Your task to perform on an android device: uninstall "Life360: Find Family & Friends" Image 0: 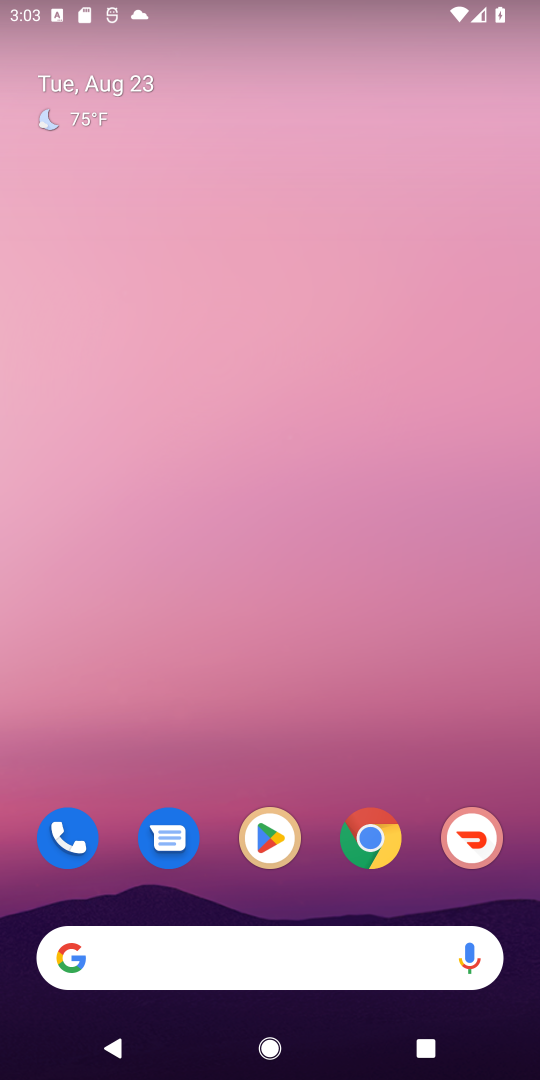
Step 0: click (267, 852)
Your task to perform on an android device: uninstall "Life360: Find Family & Friends" Image 1: 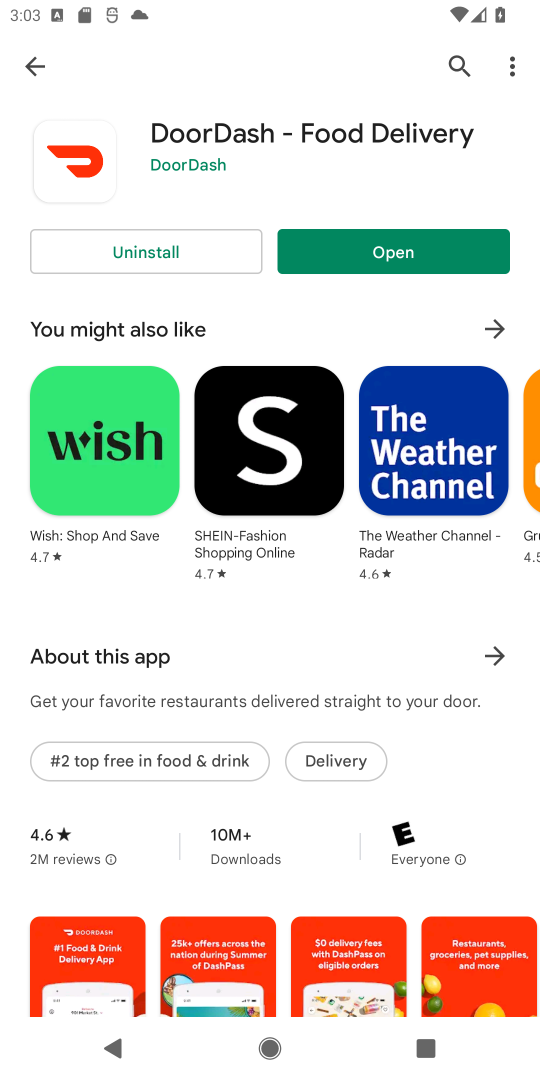
Step 1: click (31, 62)
Your task to perform on an android device: uninstall "Life360: Find Family & Friends" Image 2: 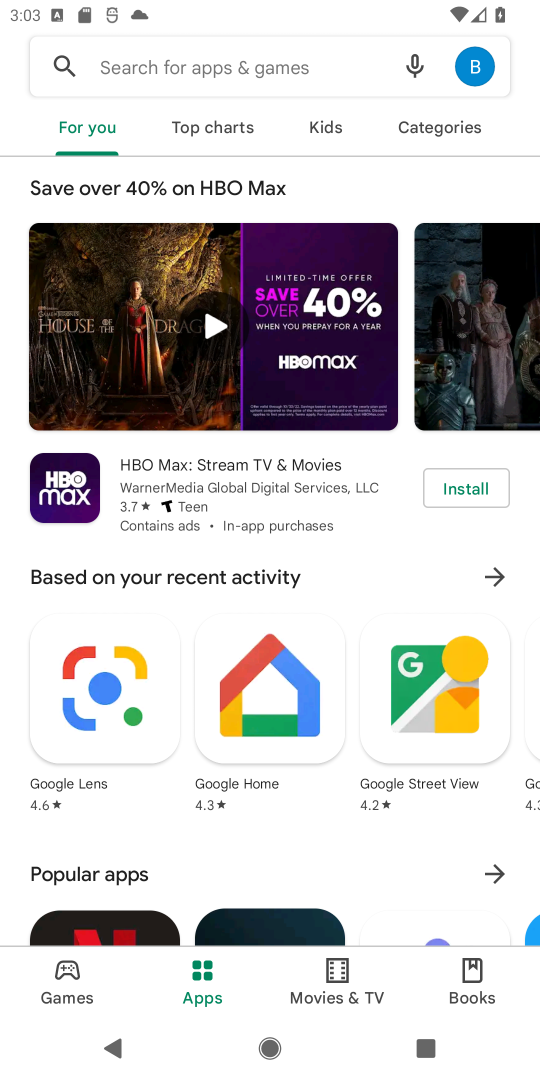
Step 2: click (245, 64)
Your task to perform on an android device: uninstall "Life360: Find Family & Friends" Image 3: 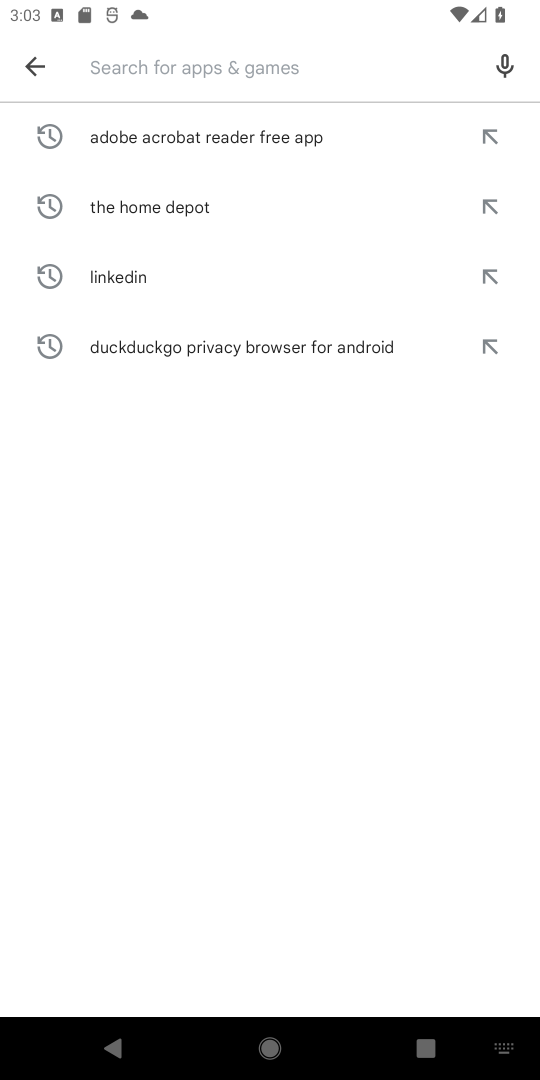
Step 3: type "Life360"
Your task to perform on an android device: uninstall "Life360: Find Family & Friends" Image 4: 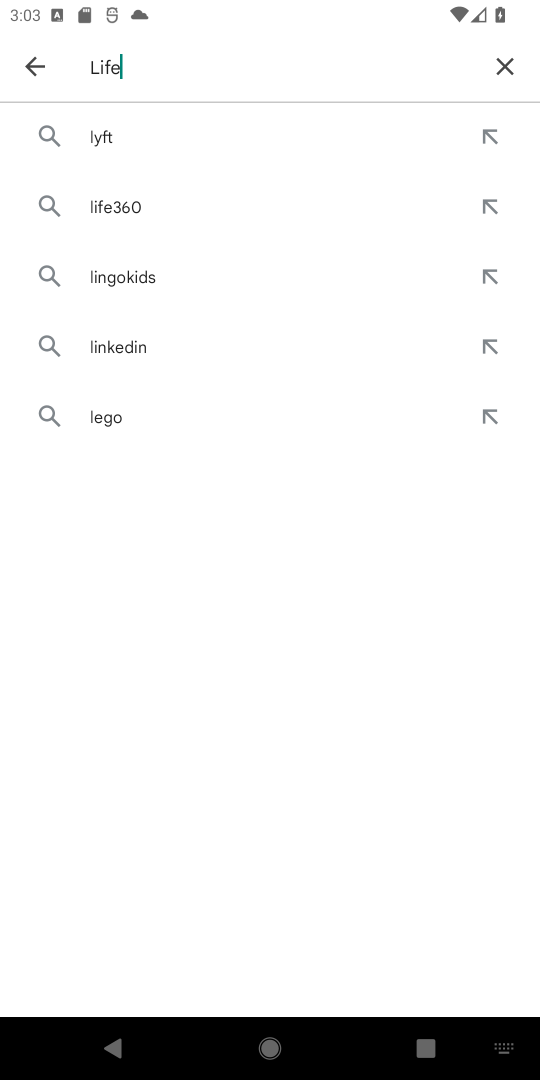
Step 4: type ""
Your task to perform on an android device: uninstall "Life360: Find Family & Friends" Image 5: 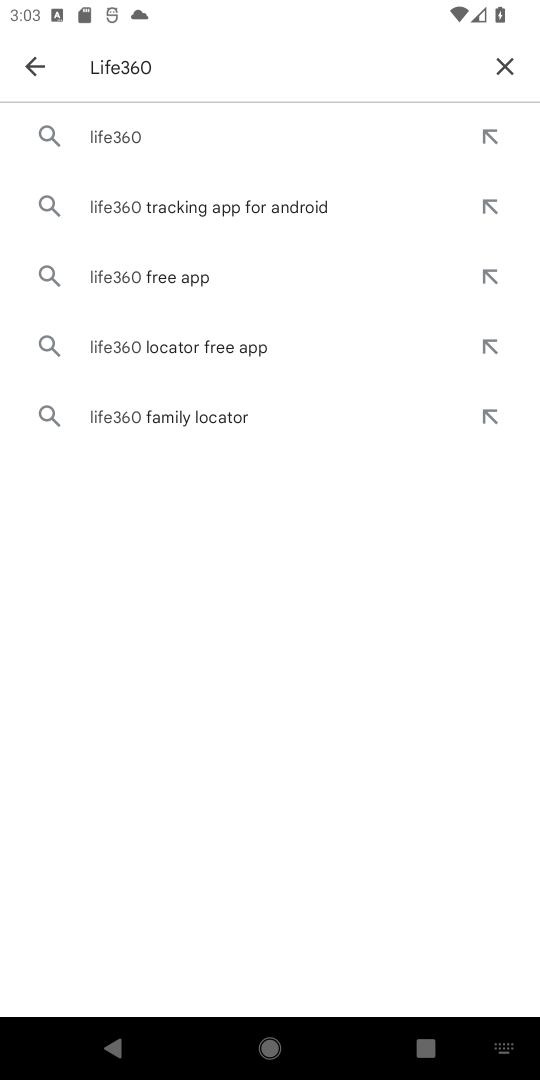
Step 5: click (130, 142)
Your task to perform on an android device: uninstall "Life360: Find Family & Friends" Image 6: 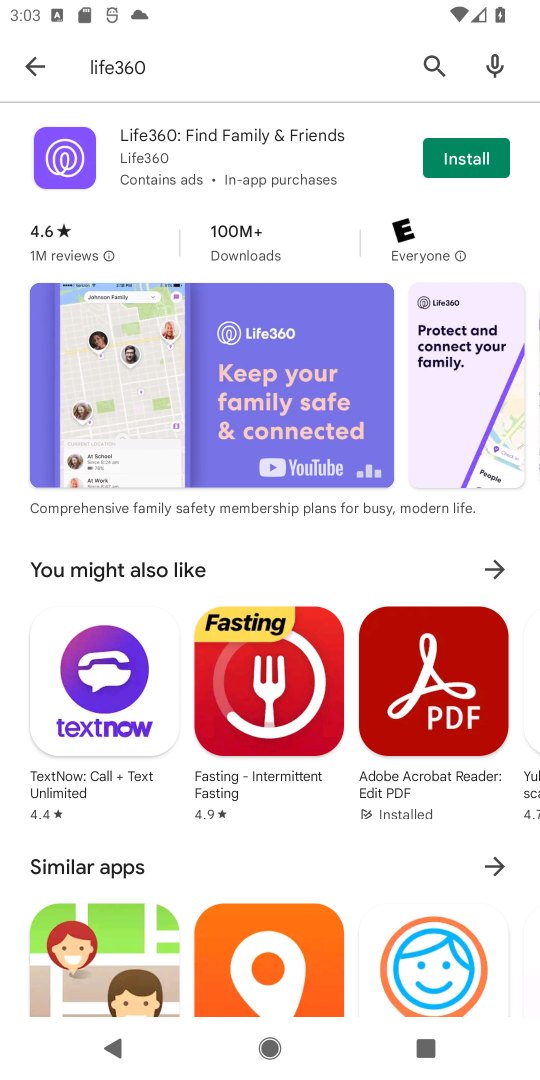
Step 6: click (216, 151)
Your task to perform on an android device: uninstall "Life360: Find Family & Friends" Image 7: 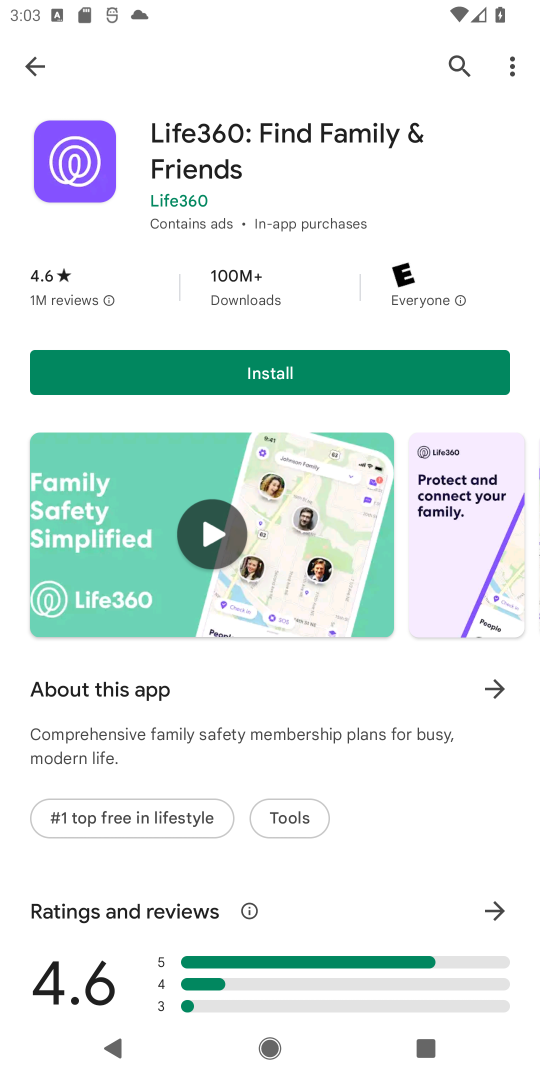
Step 7: task complete